Your task to perform on an android device: Open Google Chrome and open the bookmarks view Image 0: 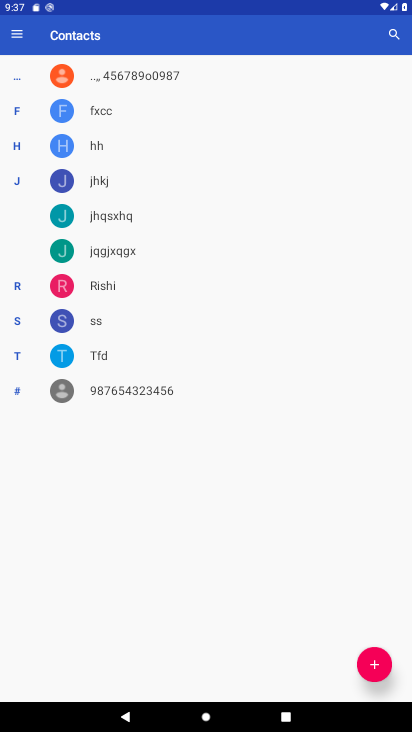
Step 0: press home button
Your task to perform on an android device: Open Google Chrome and open the bookmarks view Image 1: 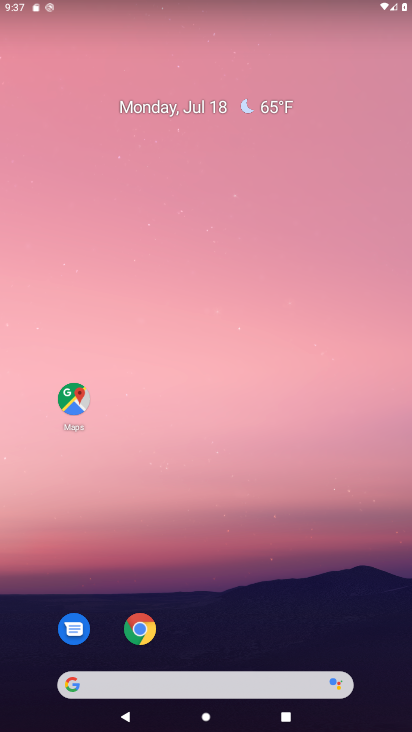
Step 1: click (141, 629)
Your task to perform on an android device: Open Google Chrome and open the bookmarks view Image 2: 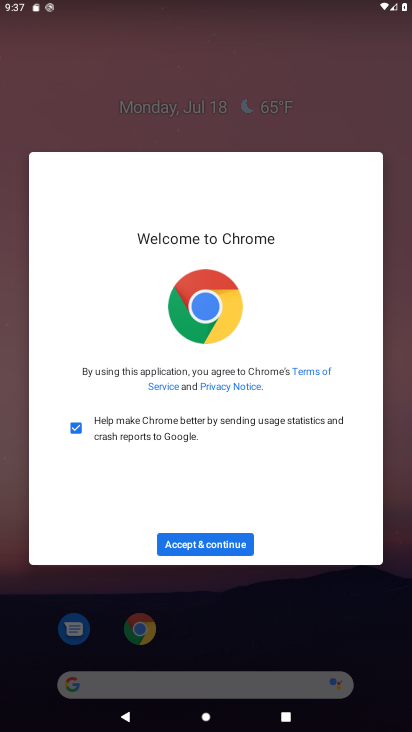
Step 2: click (223, 539)
Your task to perform on an android device: Open Google Chrome and open the bookmarks view Image 3: 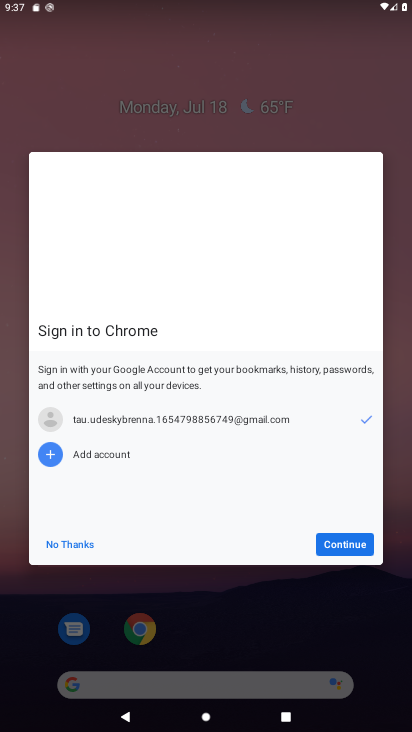
Step 3: click (333, 536)
Your task to perform on an android device: Open Google Chrome and open the bookmarks view Image 4: 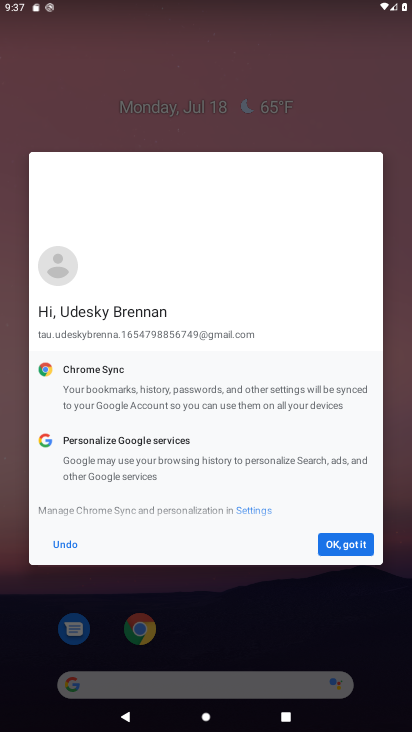
Step 4: click (335, 538)
Your task to perform on an android device: Open Google Chrome and open the bookmarks view Image 5: 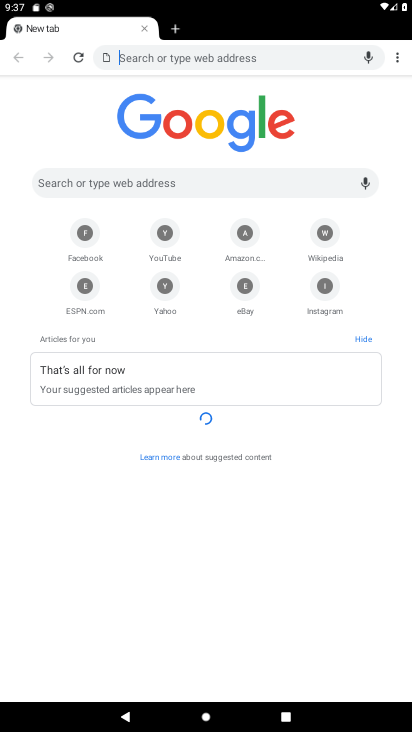
Step 5: click (400, 58)
Your task to perform on an android device: Open Google Chrome and open the bookmarks view Image 6: 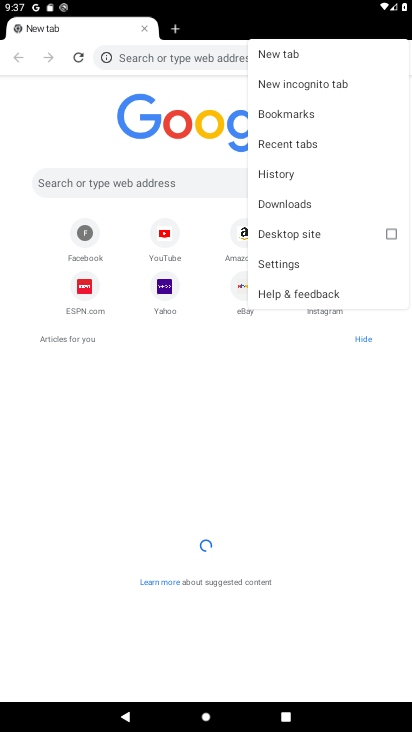
Step 6: click (300, 115)
Your task to perform on an android device: Open Google Chrome and open the bookmarks view Image 7: 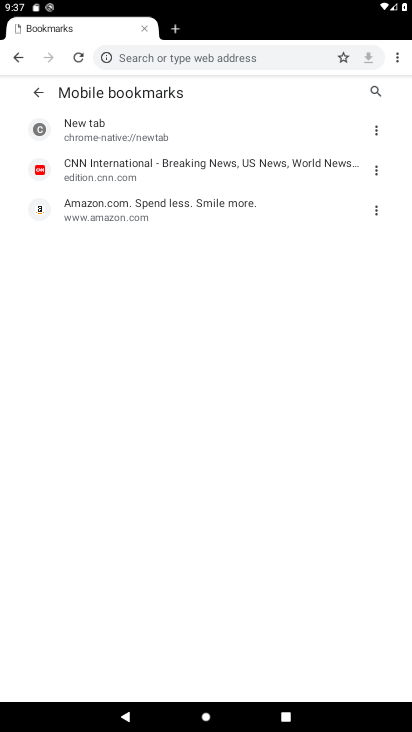
Step 7: click (370, 123)
Your task to perform on an android device: Open Google Chrome and open the bookmarks view Image 8: 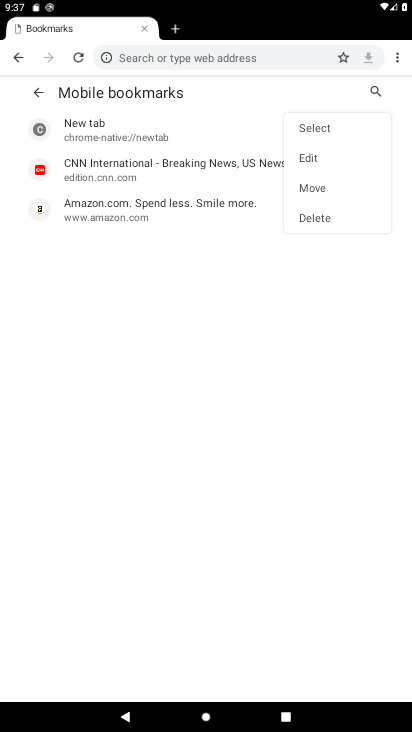
Step 8: click (312, 152)
Your task to perform on an android device: Open Google Chrome and open the bookmarks view Image 9: 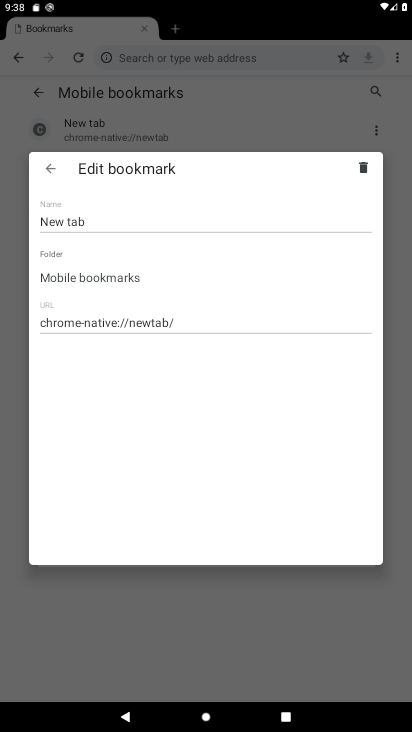
Step 9: task complete